Your task to perform on an android device: change keyboard looks Image 0: 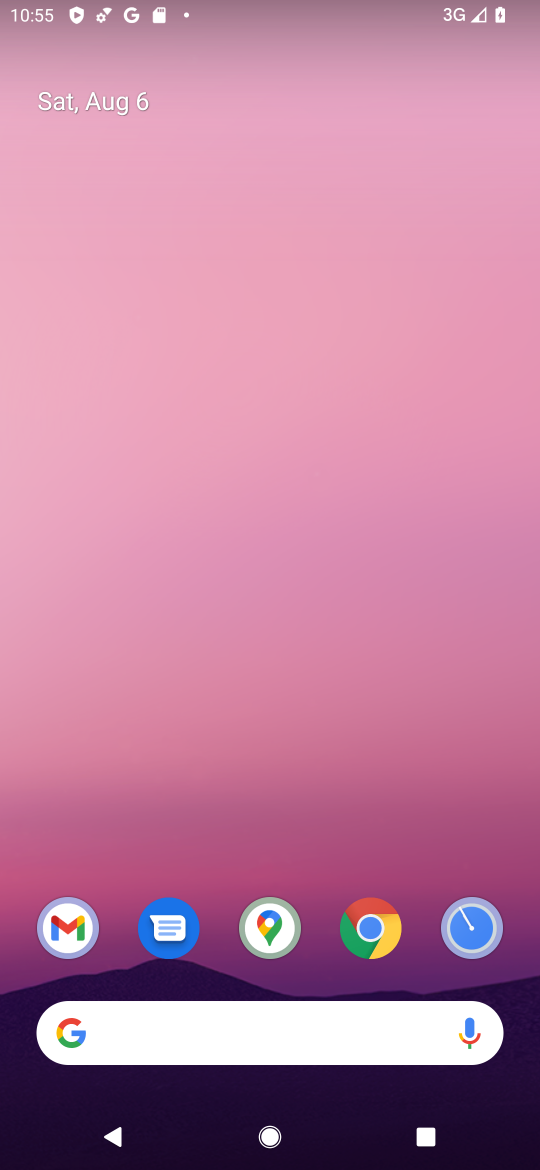
Step 0: drag from (316, 883) to (322, 311)
Your task to perform on an android device: change keyboard looks Image 1: 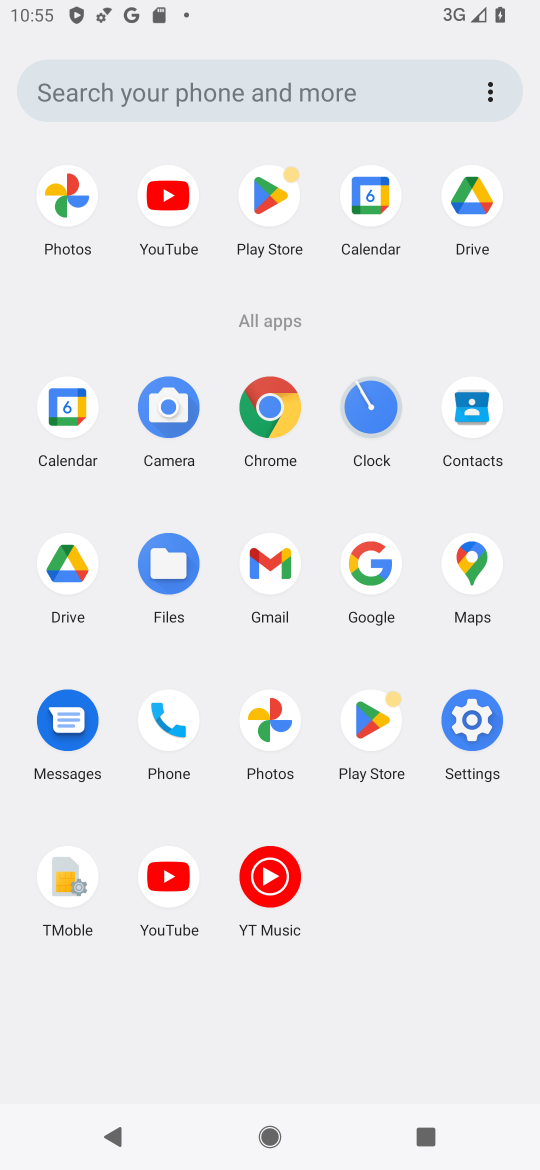
Step 1: click (473, 731)
Your task to perform on an android device: change keyboard looks Image 2: 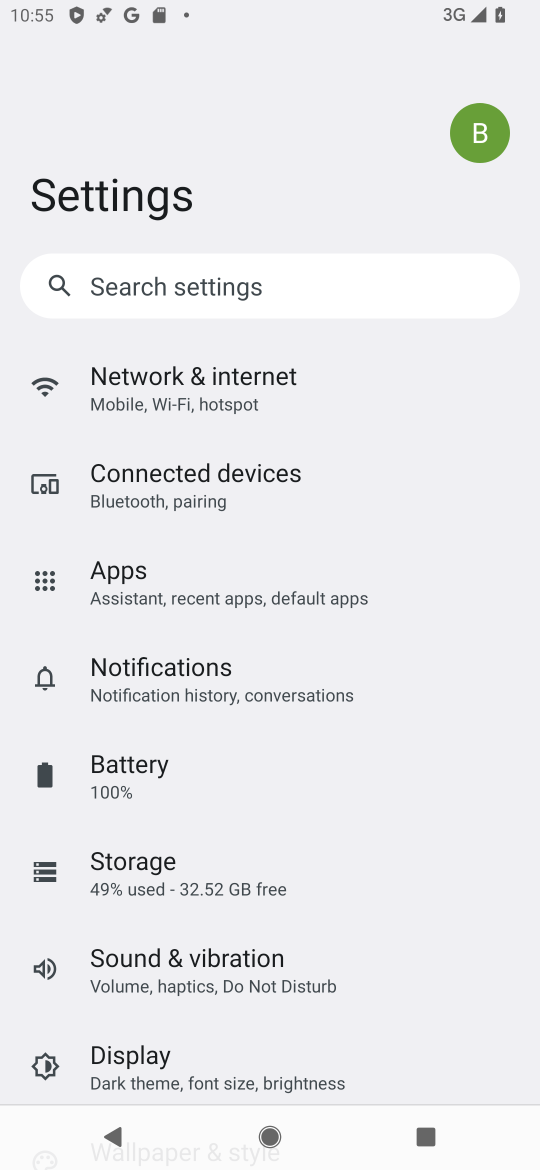
Step 2: drag from (411, 914) to (309, 262)
Your task to perform on an android device: change keyboard looks Image 3: 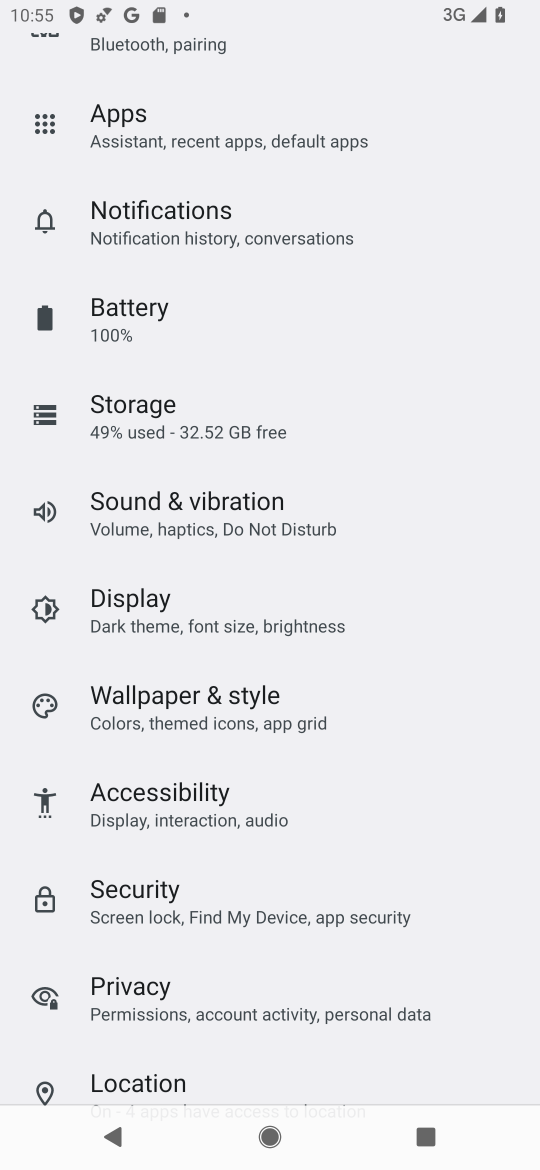
Step 3: drag from (380, 713) to (373, 446)
Your task to perform on an android device: change keyboard looks Image 4: 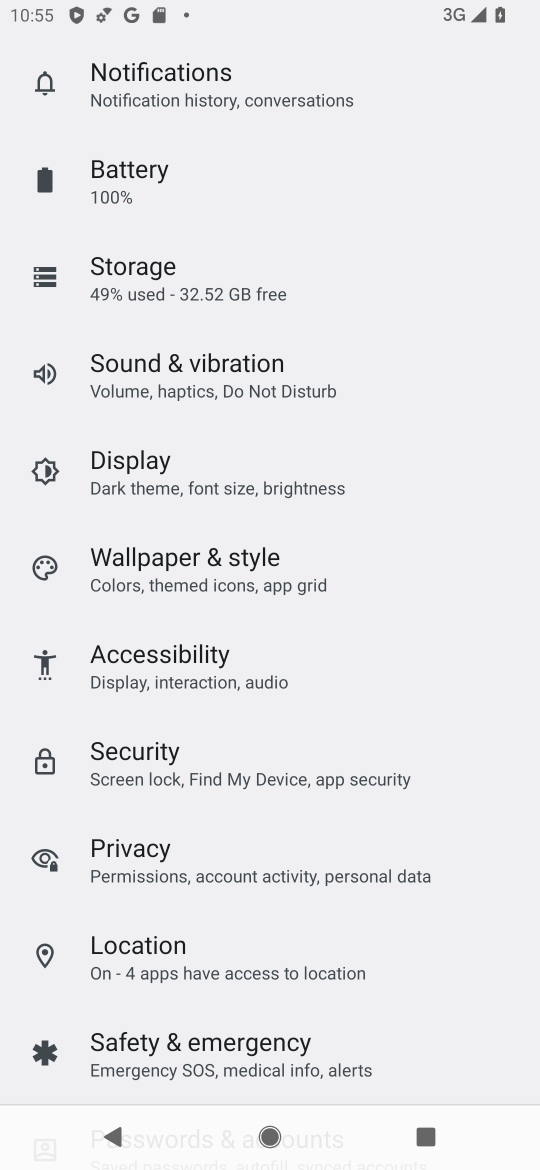
Step 4: click (139, 659)
Your task to perform on an android device: change keyboard looks Image 5: 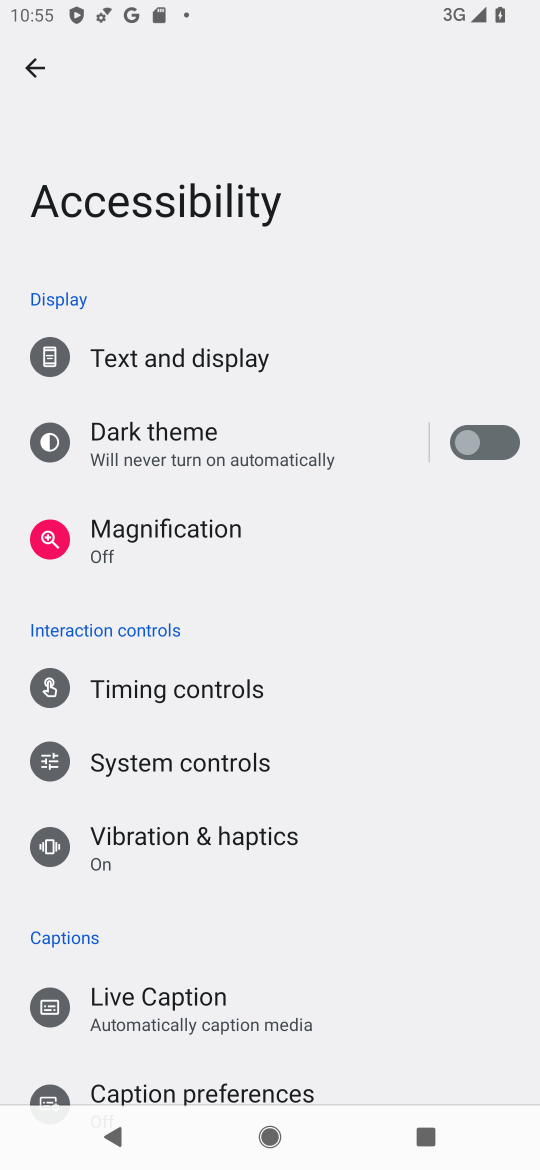
Step 5: drag from (349, 786) to (269, 29)
Your task to perform on an android device: change keyboard looks Image 6: 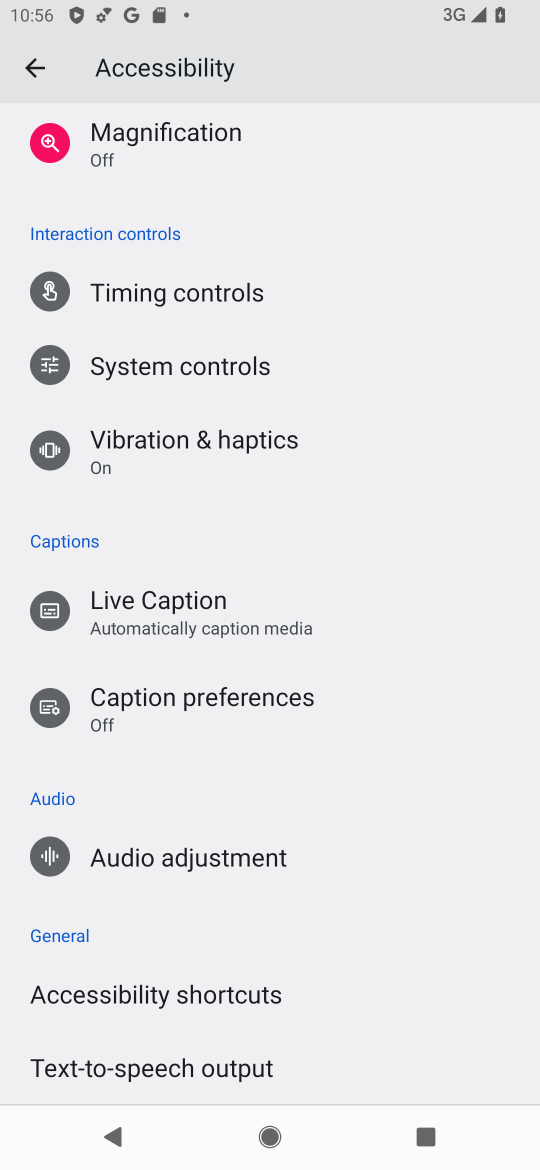
Step 6: click (30, 64)
Your task to perform on an android device: change keyboard looks Image 7: 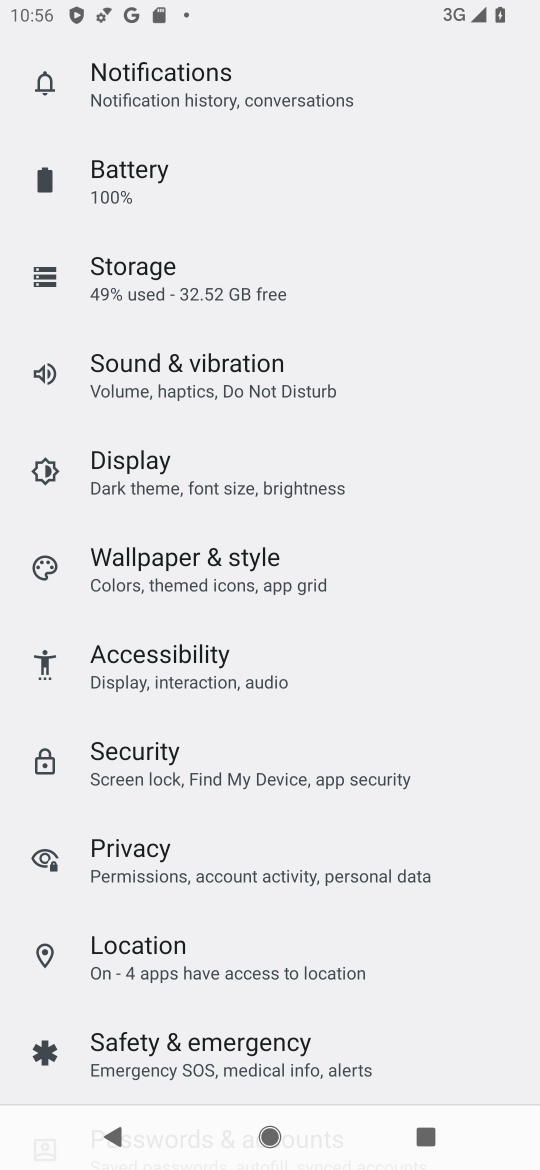
Step 7: drag from (322, 454) to (234, 1161)
Your task to perform on an android device: change keyboard looks Image 8: 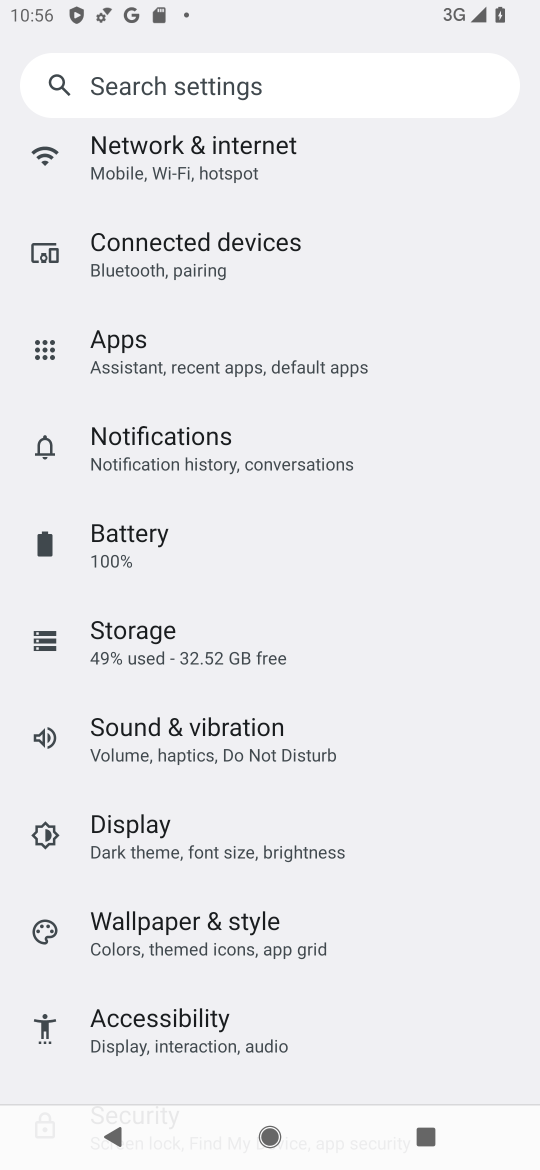
Step 8: click (244, 93)
Your task to perform on an android device: change keyboard looks Image 9: 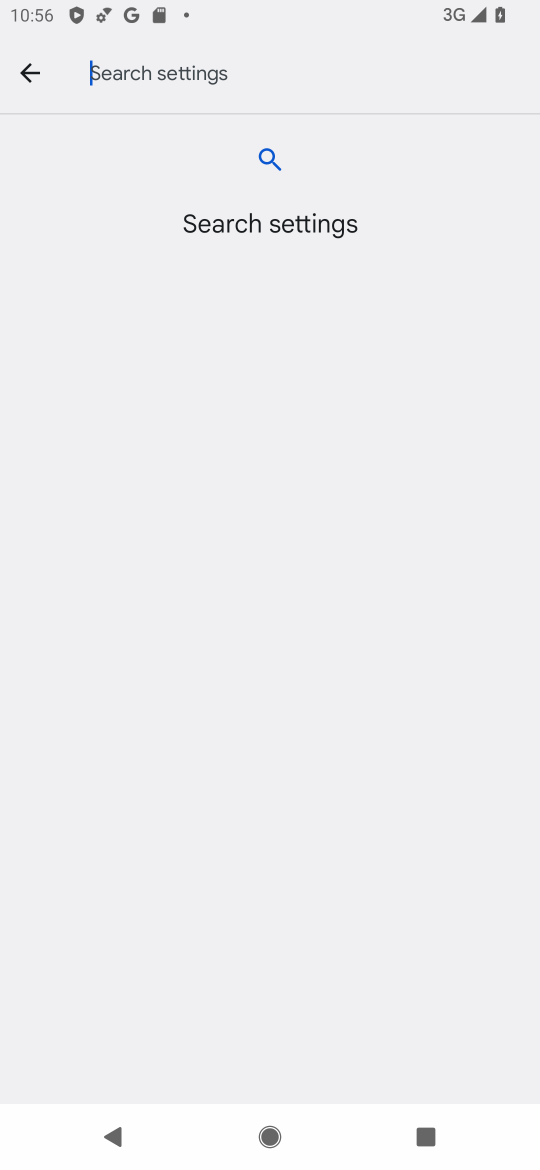
Step 9: type "keyboard"
Your task to perform on an android device: change keyboard looks Image 10: 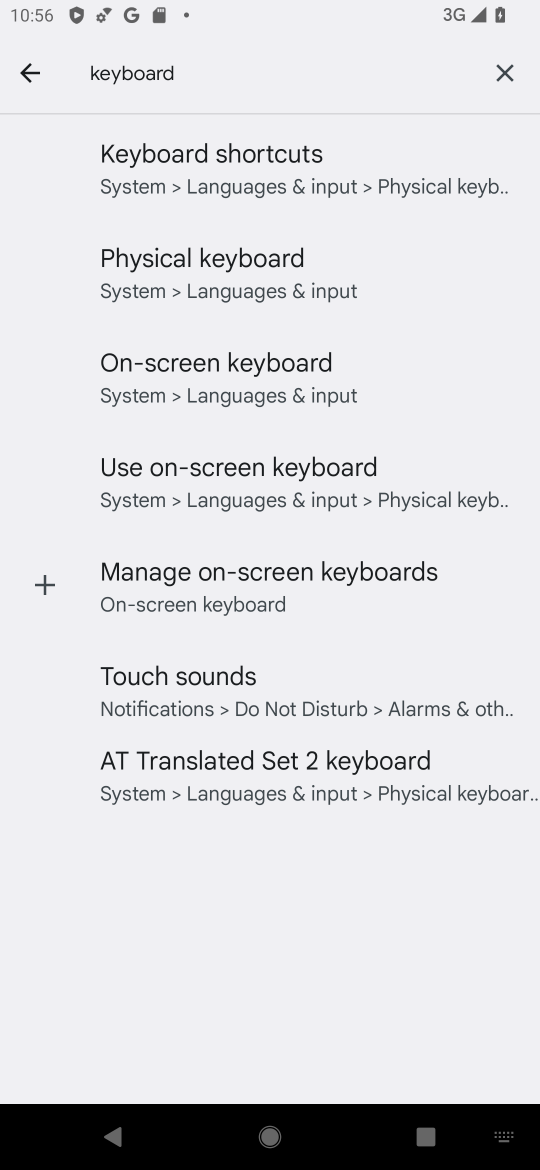
Step 10: click (257, 177)
Your task to perform on an android device: change keyboard looks Image 11: 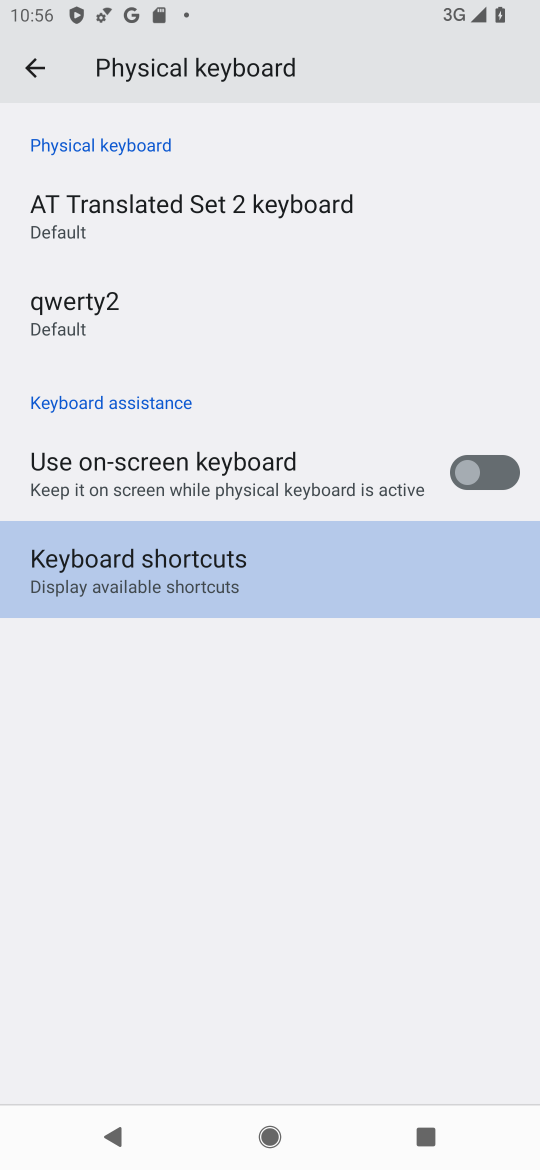
Step 11: click (472, 473)
Your task to perform on an android device: change keyboard looks Image 12: 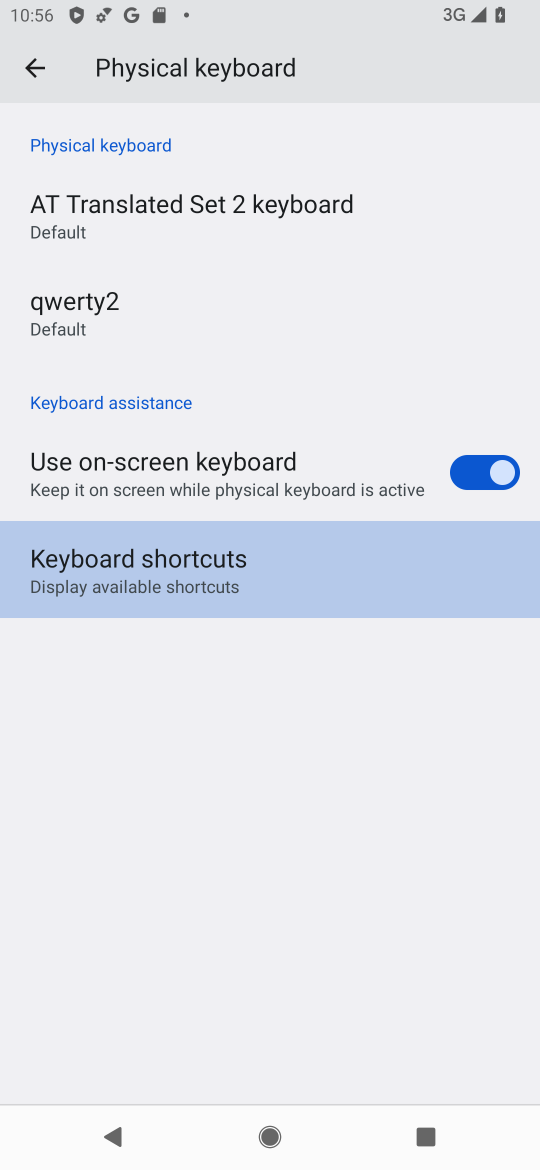
Step 12: click (80, 224)
Your task to perform on an android device: change keyboard looks Image 13: 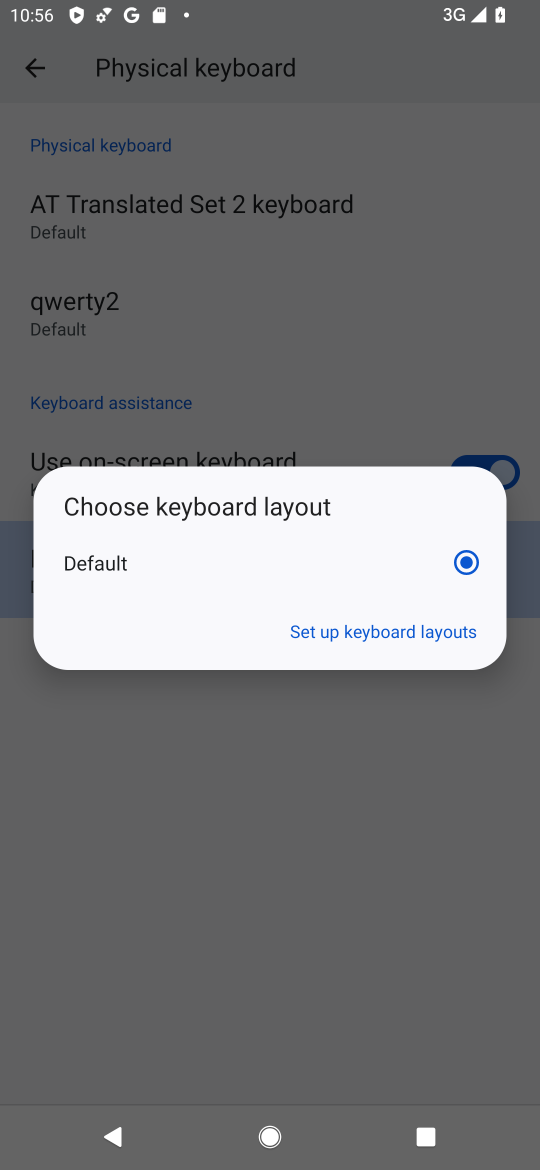
Step 13: click (367, 627)
Your task to perform on an android device: change keyboard looks Image 14: 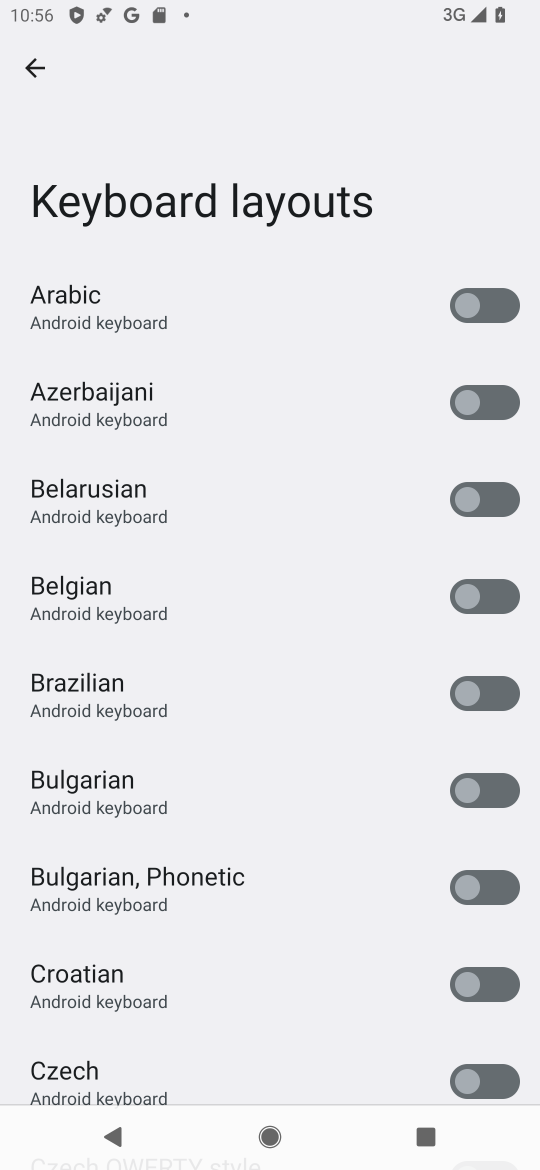
Step 14: click (463, 292)
Your task to perform on an android device: change keyboard looks Image 15: 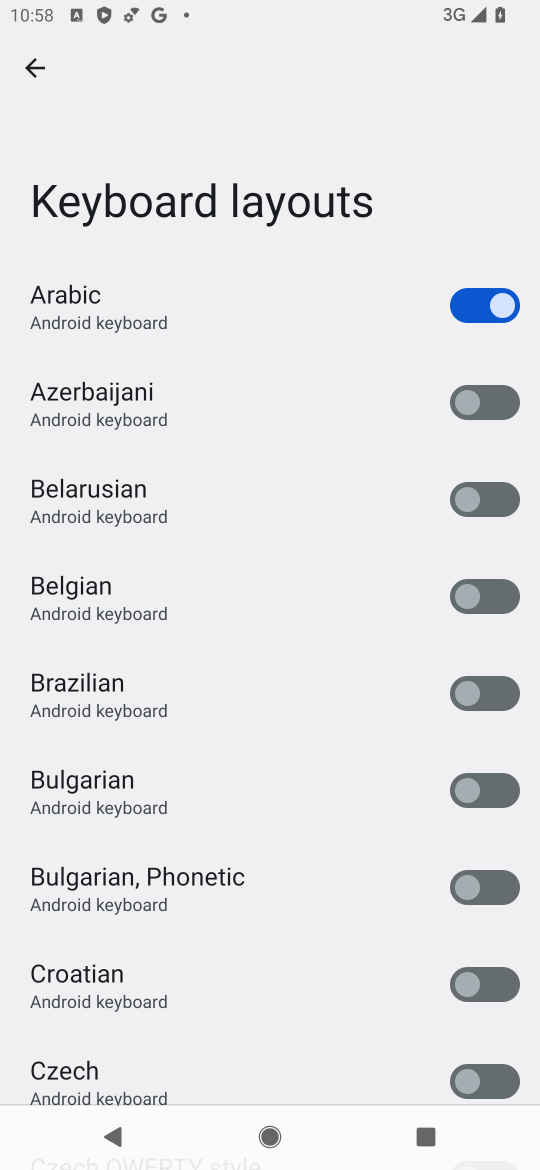
Step 15: task complete